Your task to perform on an android device: Do I have any events today? Image 0: 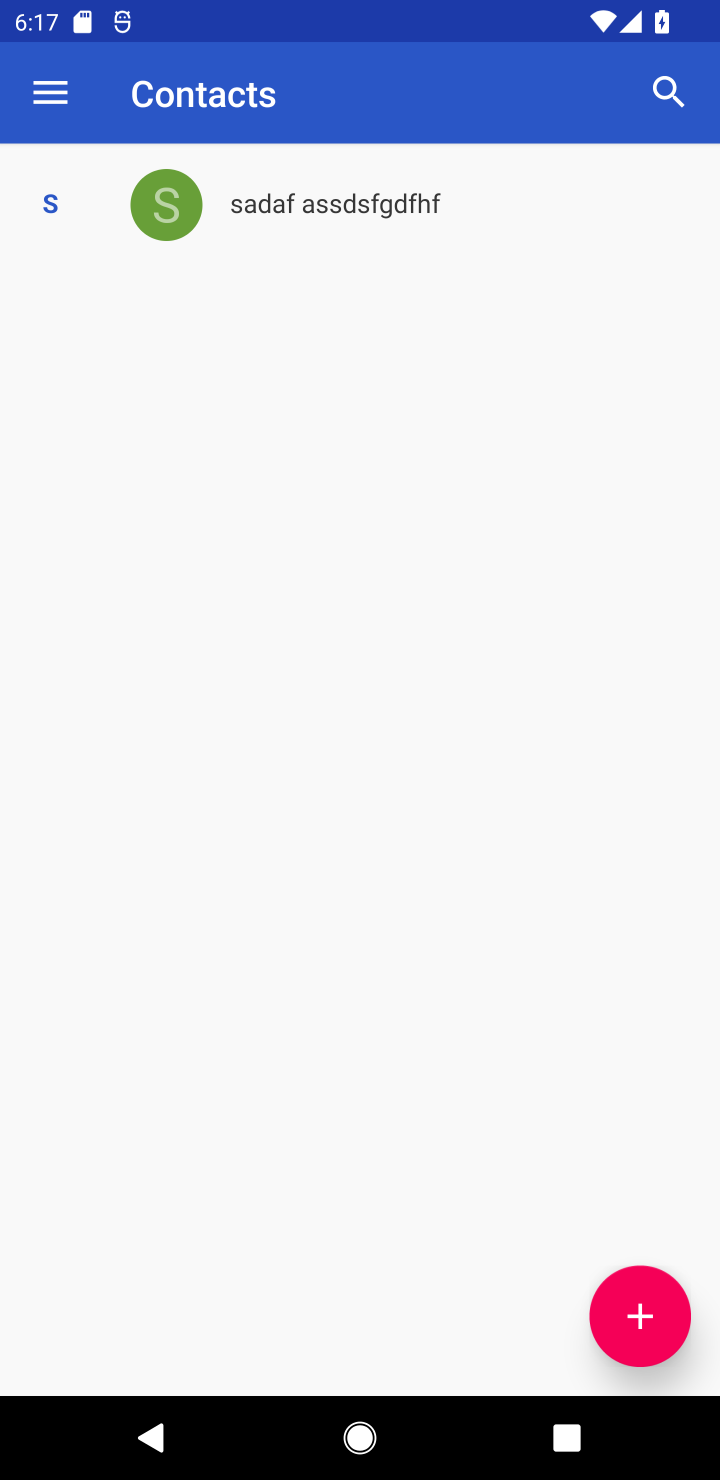
Step 0: task complete